Your task to perform on an android device: Open settings Image 0: 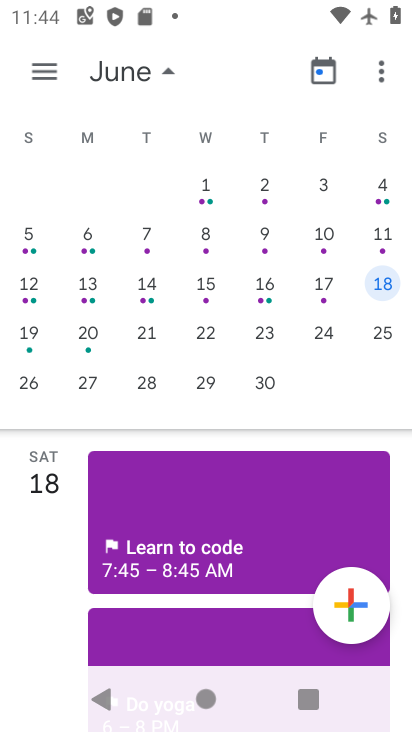
Step 0: press home button
Your task to perform on an android device: Open settings Image 1: 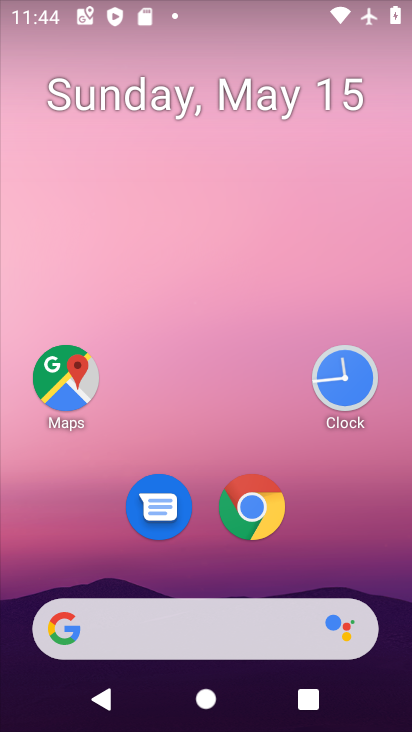
Step 1: drag from (314, 554) to (295, 77)
Your task to perform on an android device: Open settings Image 2: 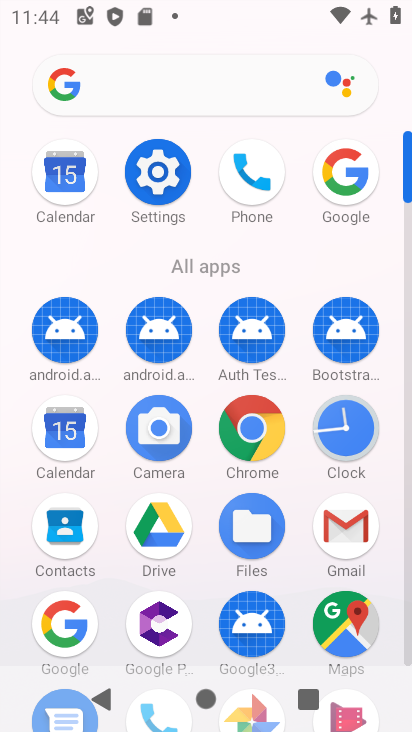
Step 2: click (154, 189)
Your task to perform on an android device: Open settings Image 3: 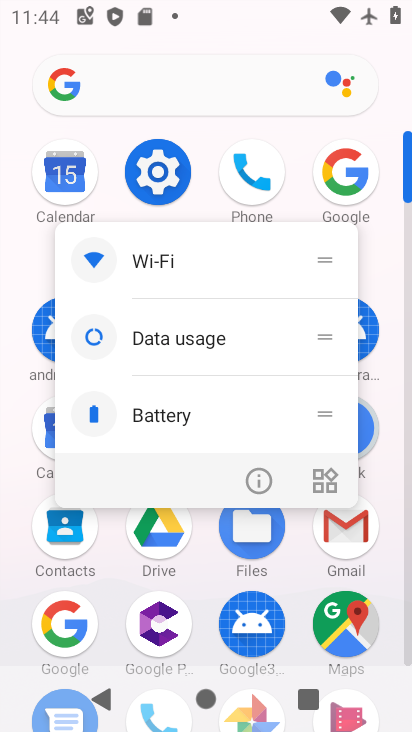
Step 3: click (164, 181)
Your task to perform on an android device: Open settings Image 4: 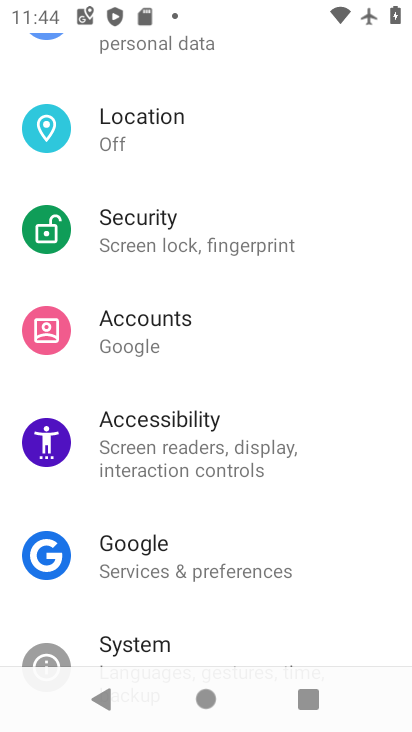
Step 4: task complete